Your task to perform on an android device: turn off javascript in the chrome app Image 0: 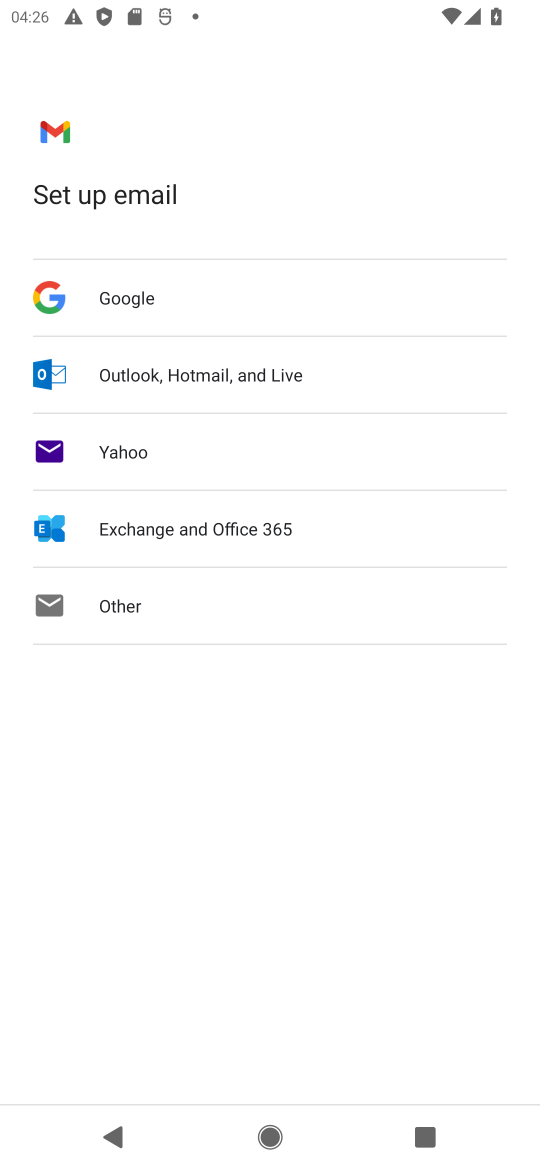
Step 0: press home button
Your task to perform on an android device: turn off javascript in the chrome app Image 1: 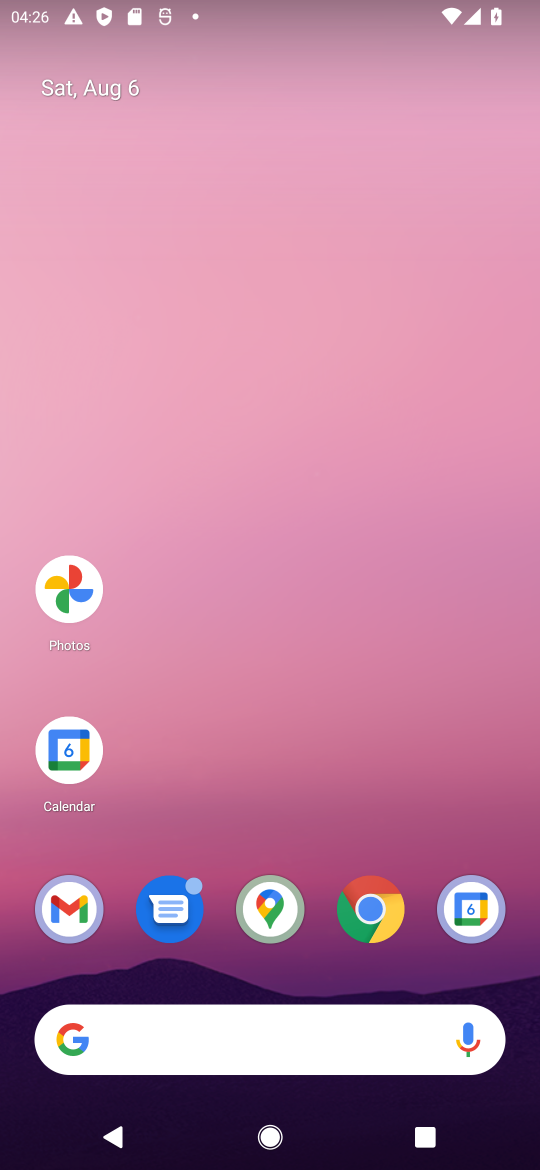
Step 1: click (365, 907)
Your task to perform on an android device: turn off javascript in the chrome app Image 2: 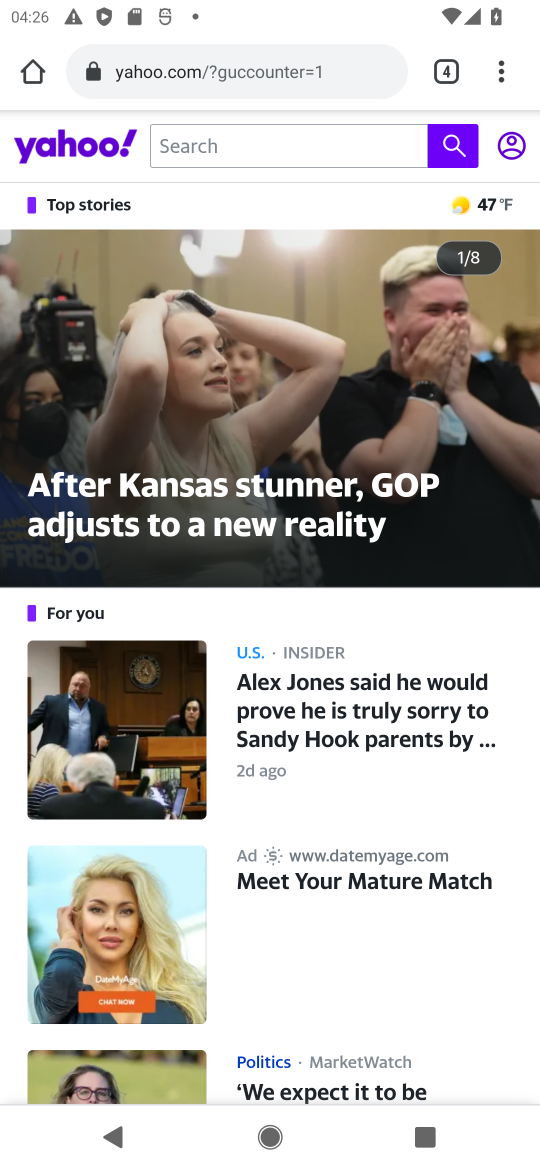
Step 2: click (504, 68)
Your task to perform on an android device: turn off javascript in the chrome app Image 3: 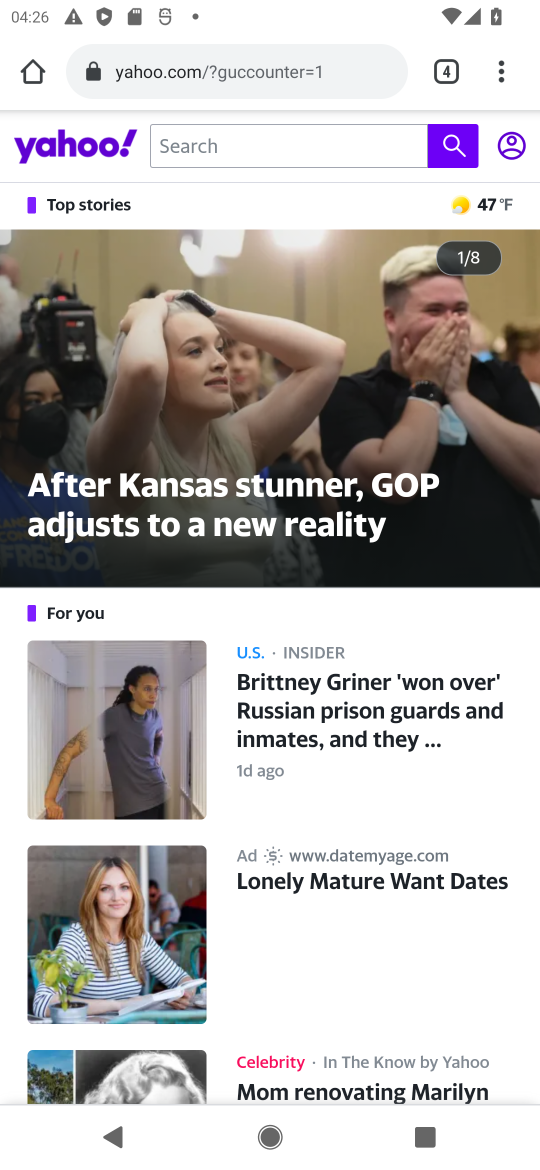
Step 3: click (492, 83)
Your task to perform on an android device: turn off javascript in the chrome app Image 4: 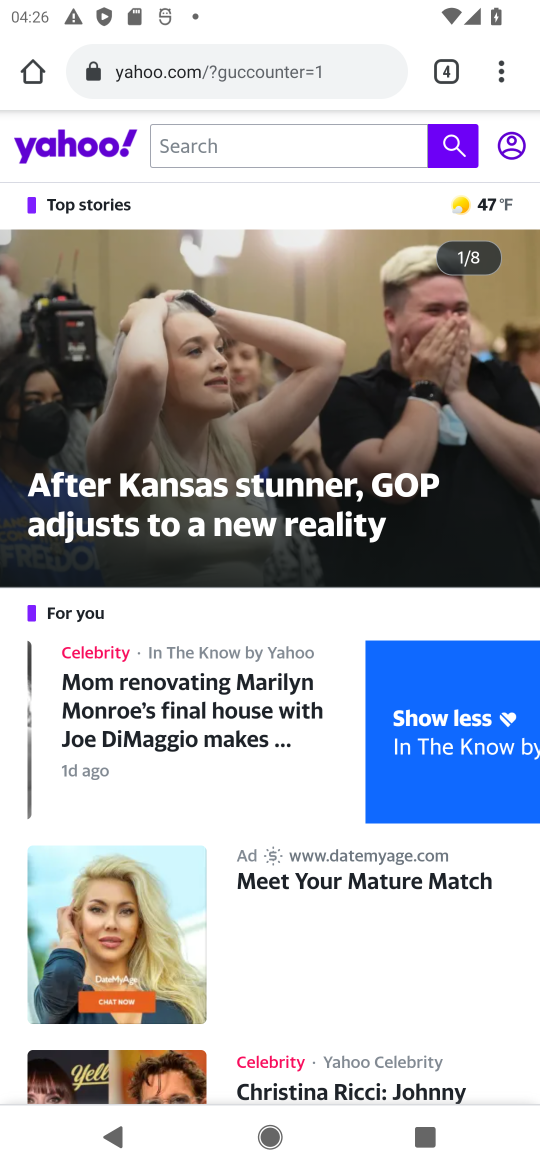
Step 4: click (510, 56)
Your task to perform on an android device: turn off javascript in the chrome app Image 5: 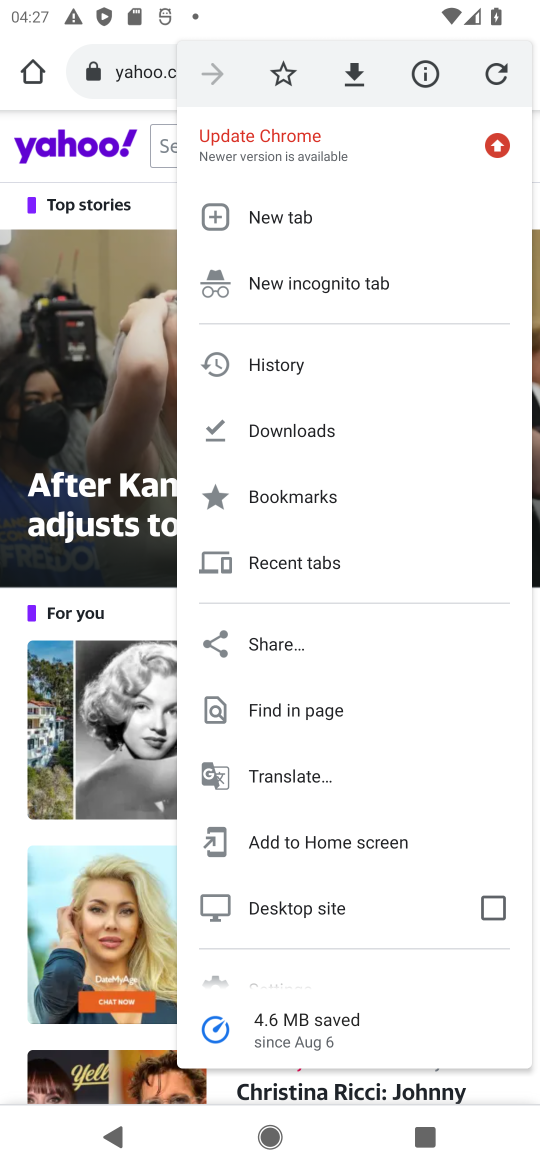
Step 5: drag from (369, 770) to (396, 181)
Your task to perform on an android device: turn off javascript in the chrome app Image 6: 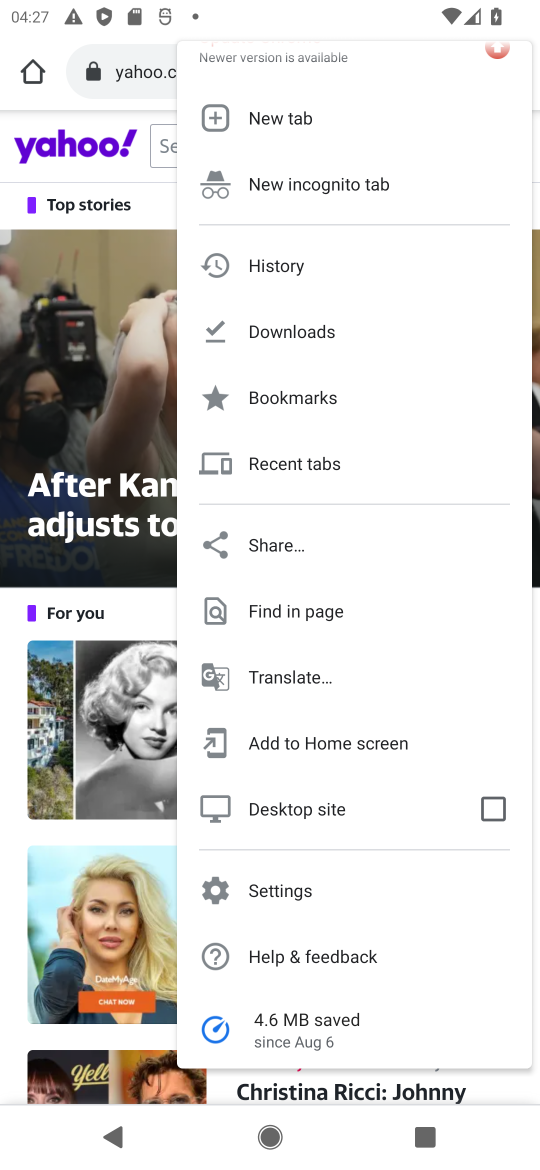
Step 6: click (294, 880)
Your task to perform on an android device: turn off javascript in the chrome app Image 7: 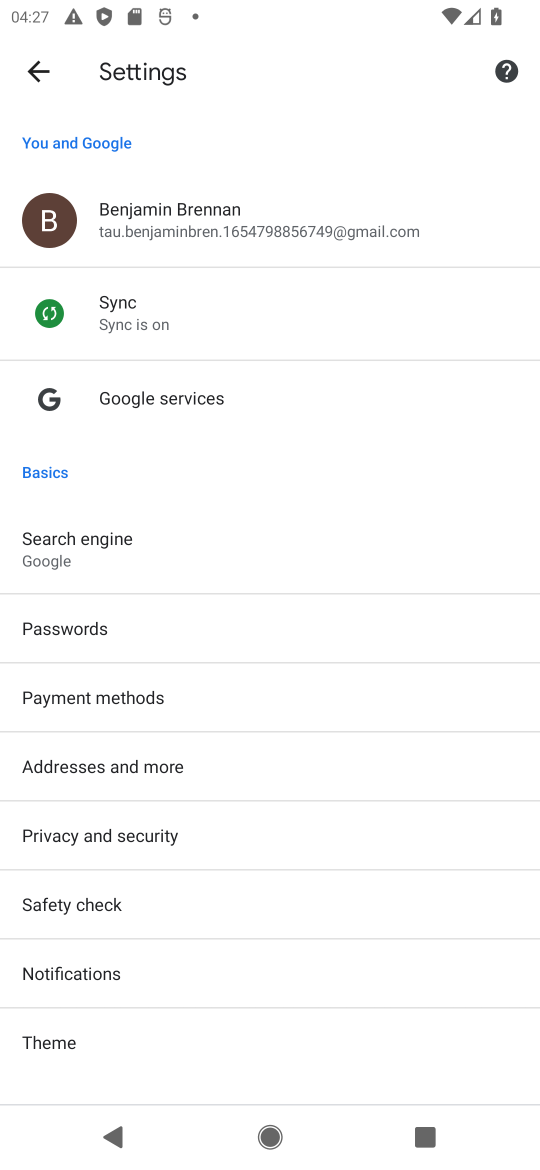
Step 7: drag from (256, 966) to (228, 368)
Your task to perform on an android device: turn off javascript in the chrome app Image 8: 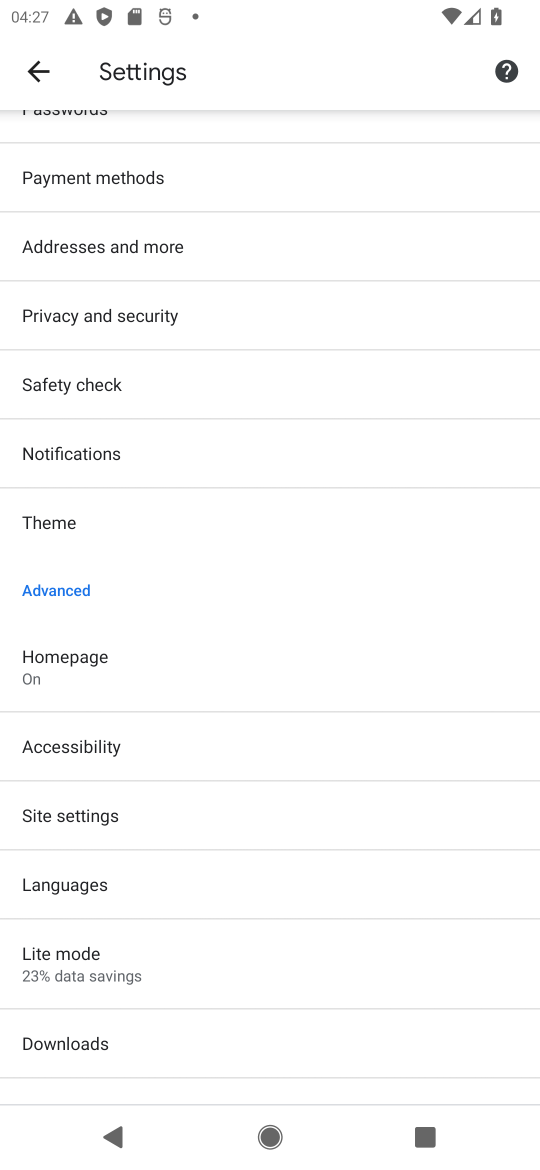
Step 8: click (96, 808)
Your task to perform on an android device: turn off javascript in the chrome app Image 9: 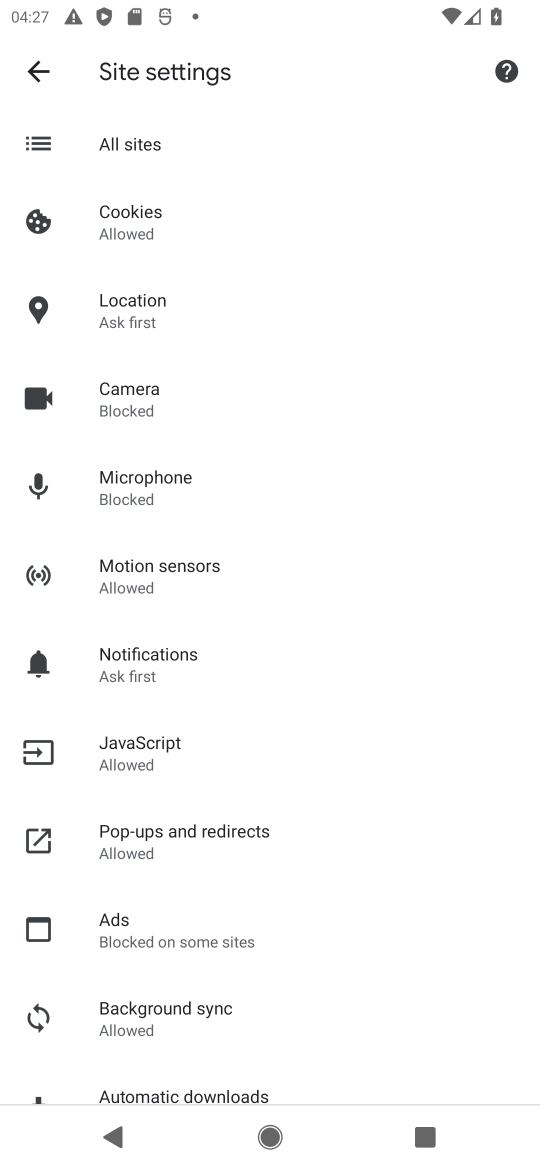
Step 9: click (154, 741)
Your task to perform on an android device: turn off javascript in the chrome app Image 10: 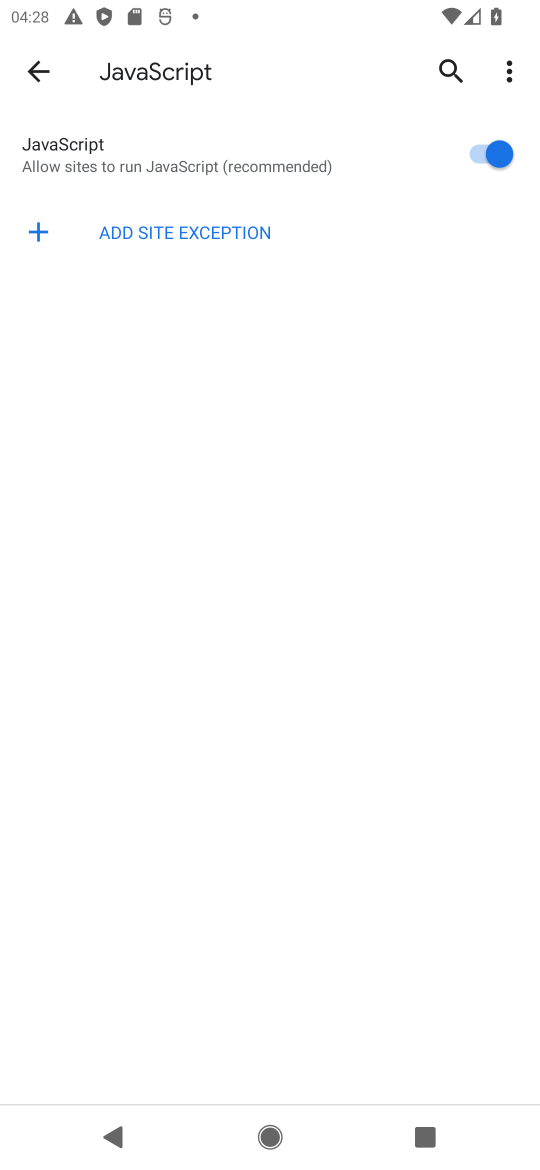
Step 10: click (502, 151)
Your task to perform on an android device: turn off javascript in the chrome app Image 11: 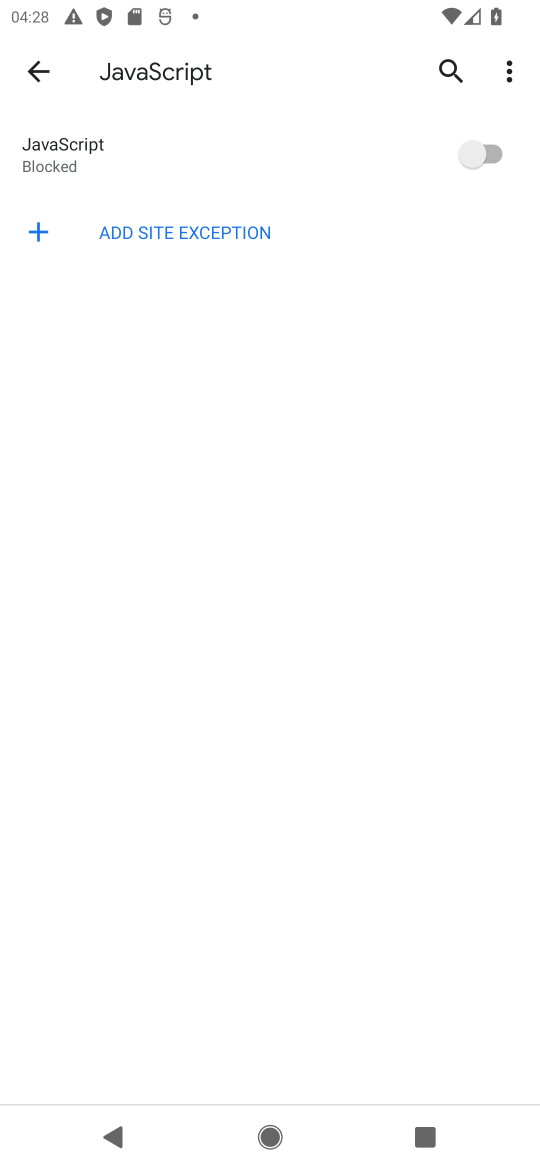
Step 11: task complete